Your task to perform on an android device: turn off location history Image 0: 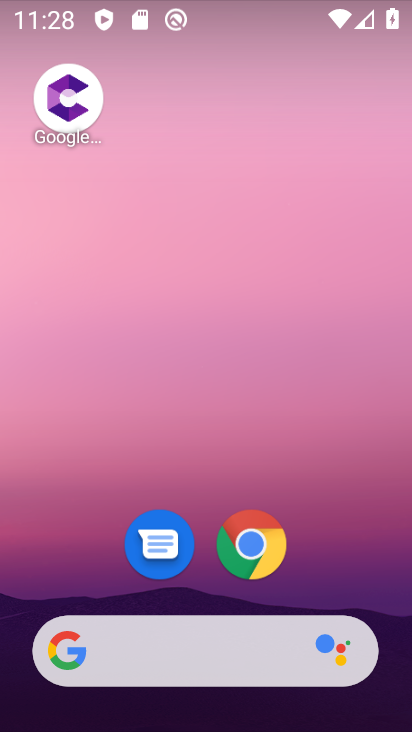
Step 0: drag from (351, 580) to (348, 2)
Your task to perform on an android device: turn off location history Image 1: 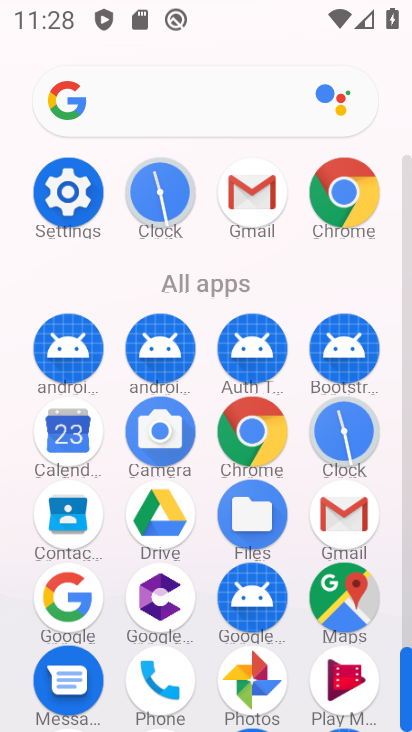
Step 1: click (77, 173)
Your task to perform on an android device: turn off location history Image 2: 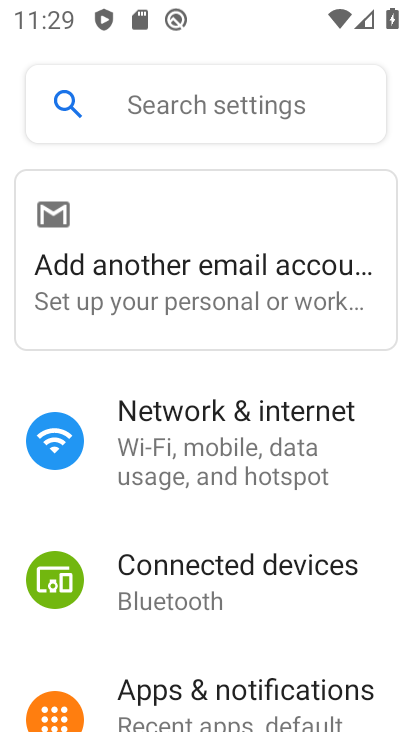
Step 2: drag from (257, 548) to (260, 172)
Your task to perform on an android device: turn off location history Image 3: 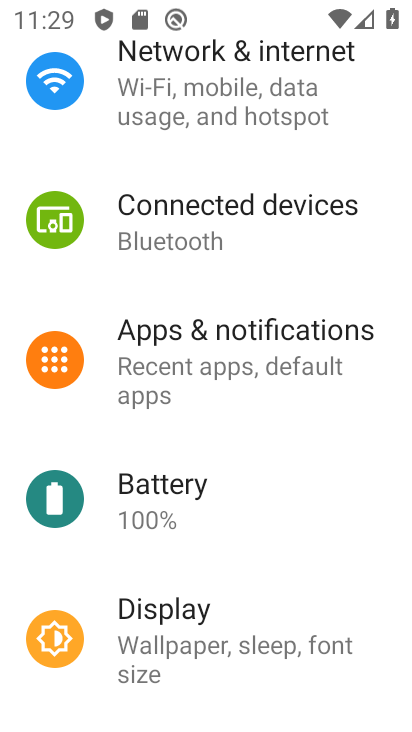
Step 3: drag from (193, 530) to (157, 210)
Your task to perform on an android device: turn off location history Image 4: 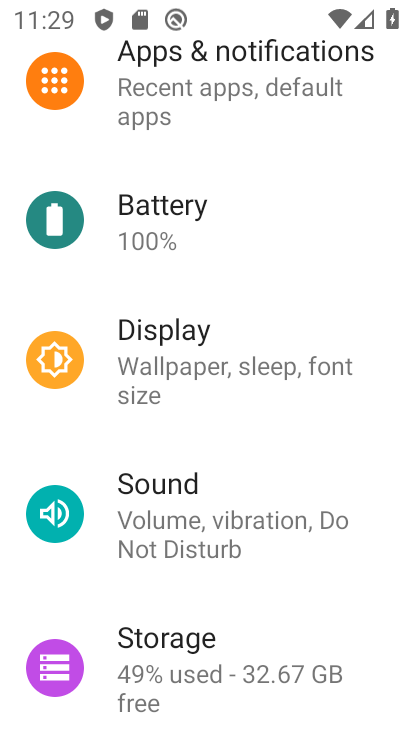
Step 4: drag from (216, 586) to (213, 302)
Your task to perform on an android device: turn off location history Image 5: 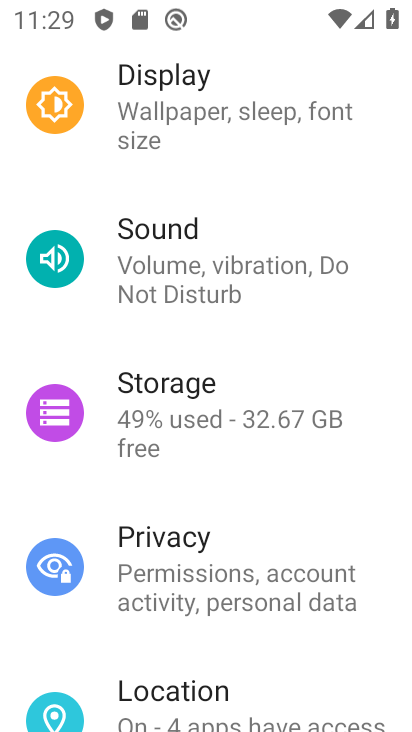
Step 5: drag from (248, 516) to (266, 296)
Your task to perform on an android device: turn off location history Image 6: 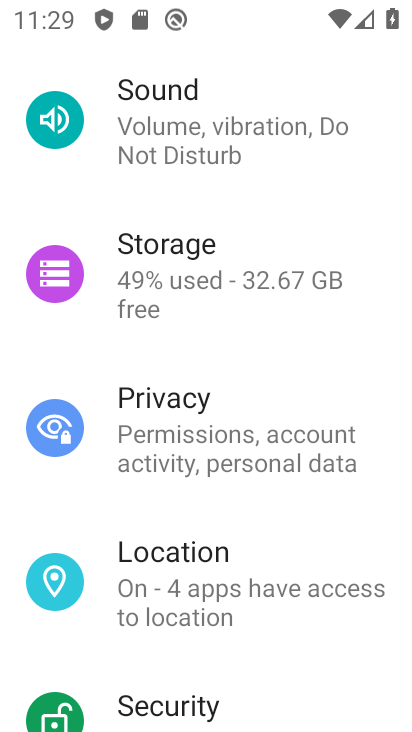
Step 6: click (195, 546)
Your task to perform on an android device: turn off location history Image 7: 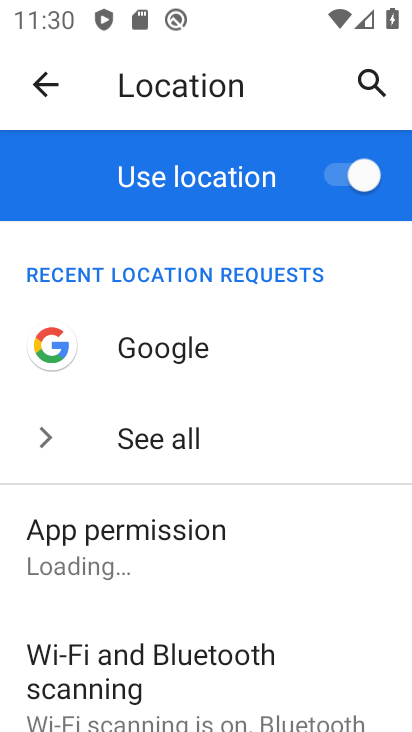
Step 7: drag from (70, 581) to (100, 376)
Your task to perform on an android device: turn off location history Image 8: 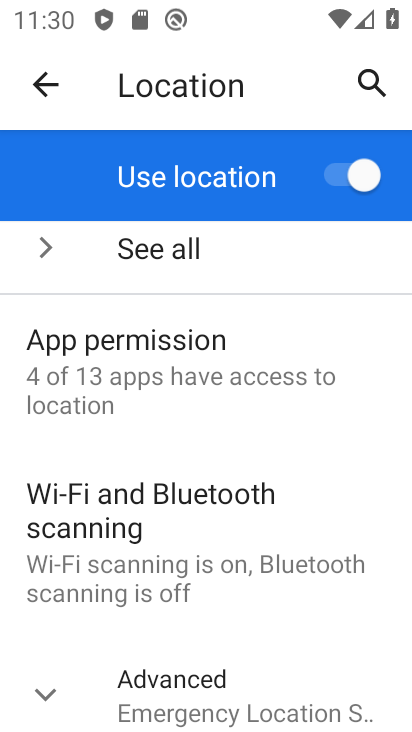
Step 8: click (156, 637)
Your task to perform on an android device: turn off location history Image 9: 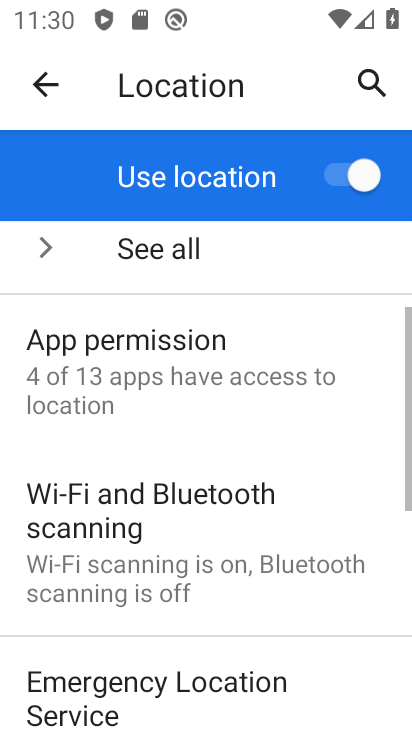
Step 9: drag from (91, 641) to (97, 256)
Your task to perform on an android device: turn off location history Image 10: 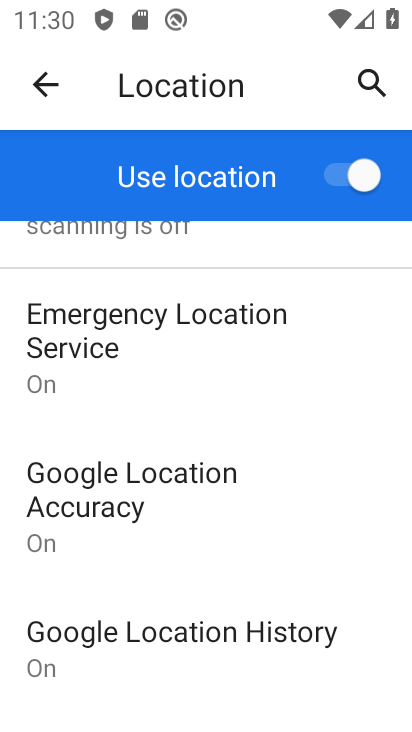
Step 10: drag from (242, 563) to (211, 322)
Your task to perform on an android device: turn off location history Image 11: 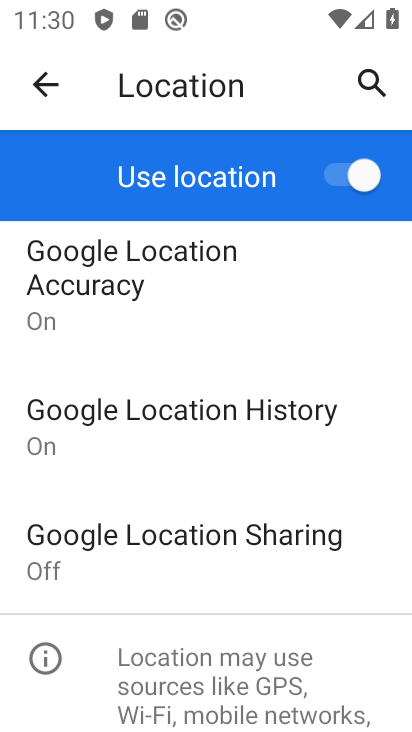
Step 11: click (255, 422)
Your task to perform on an android device: turn off location history Image 12: 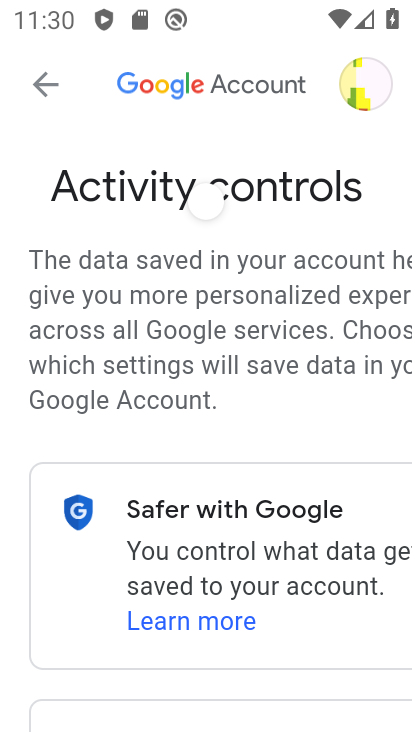
Step 12: drag from (279, 543) to (189, 127)
Your task to perform on an android device: turn off location history Image 13: 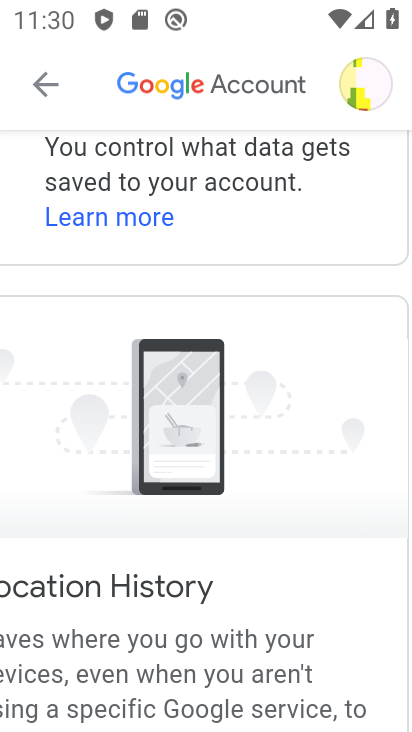
Step 13: drag from (237, 522) to (228, 93)
Your task to perform on an android device: turn off location history Image 14: 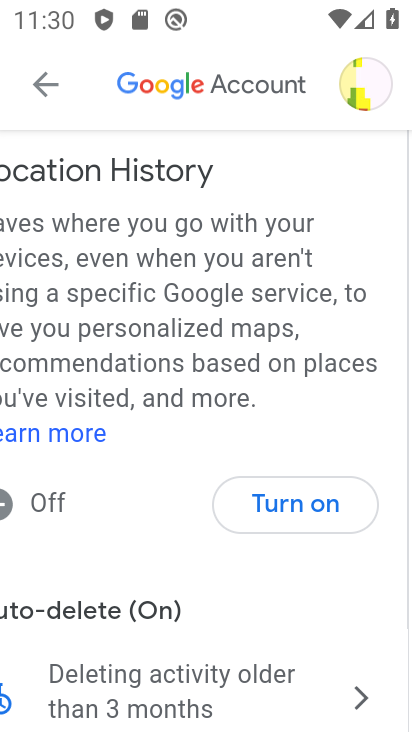
Step 14: click (36, 508)
Your task to perform on an android device: turn off location history Image 15: 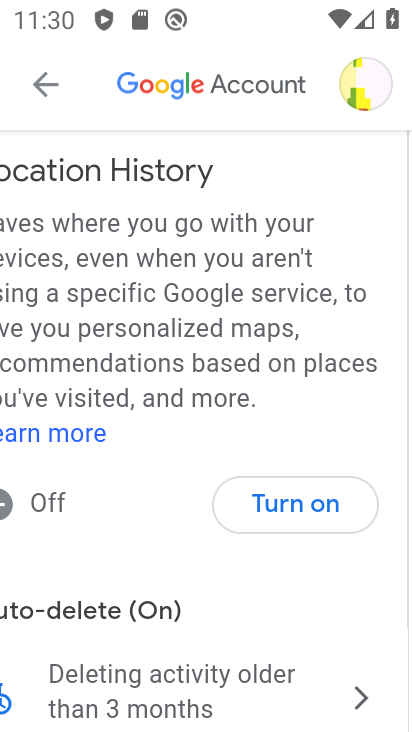
Step 15: click (37, 507)
Your task to perform on an android device: turn off location history Image 16: 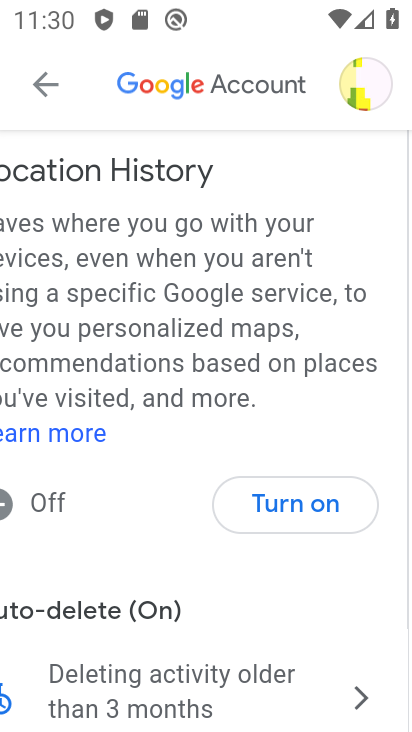
Step 16: click (38, 506)
Your task to perform on an android device: turn off location history Image 17: 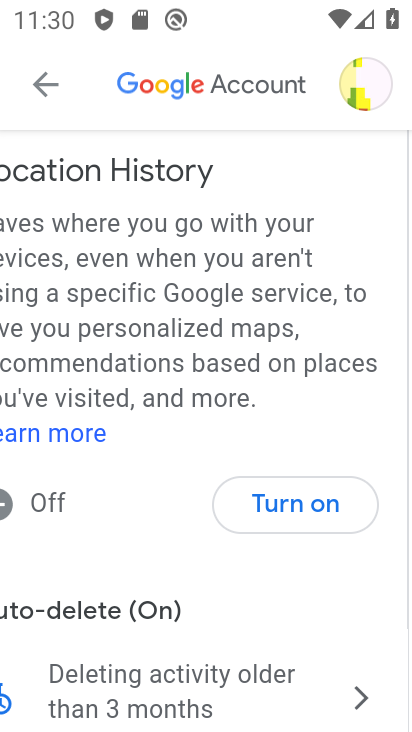
Step 17: click (19, 492)
Your task to perform on an android device: turn off location history Image 18: 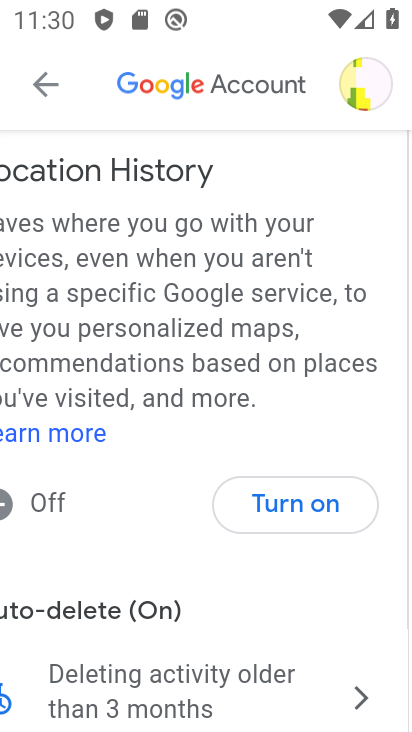
Step 18: click (32, 501)
Your task to perform on an android device: turn off location history Image 19: 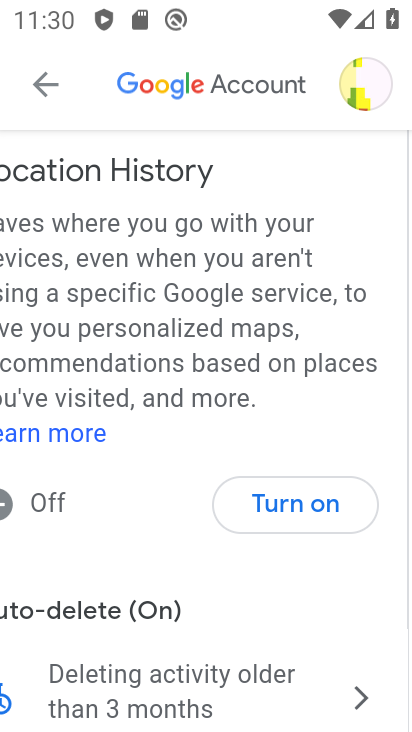
Step 19: click (32, 501)
Your task to perform on an android device: turn off location history Image 20: 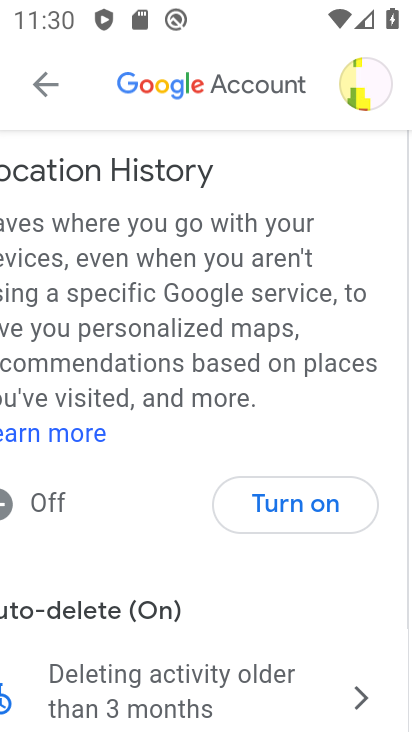
Step 20: drag from (31, 501) to (119, 467)
Your task to perform on an android device: turn off location history Image 21: 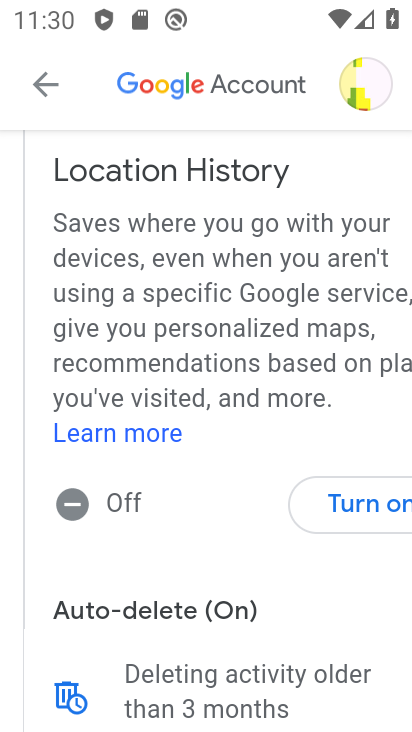
Step 21: click (77, 509)
Your task to perform on an android device: turn off location history Image 22: 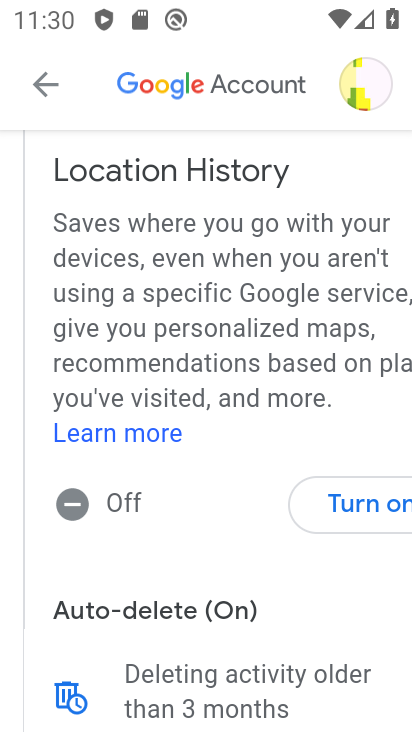
Step 22: click (77, 509)
Your task to perform on an android device: turn off location history Image 23: 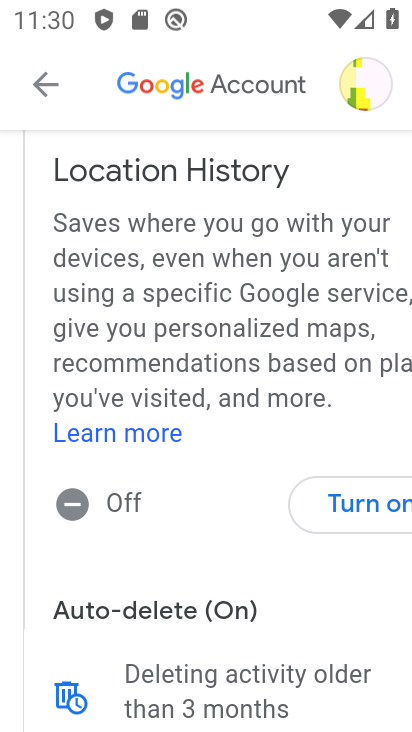
Step 23: click (77, 509)
Your task to perform on an android device: turn off location history Image 24: 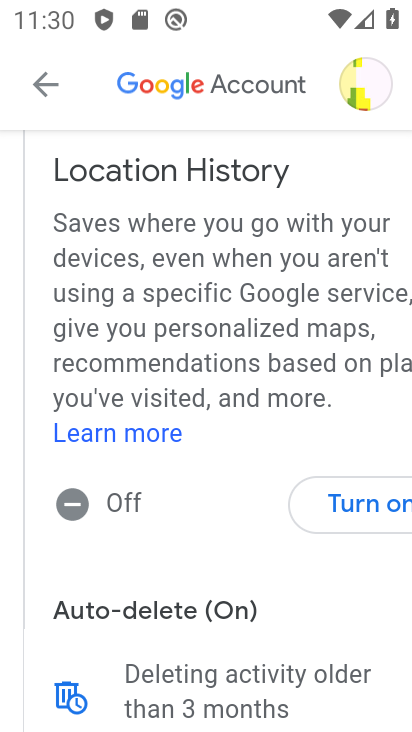
Step 24: task complete